Your task to perform on an android device: install app "Facebook Messenger" Image 0: 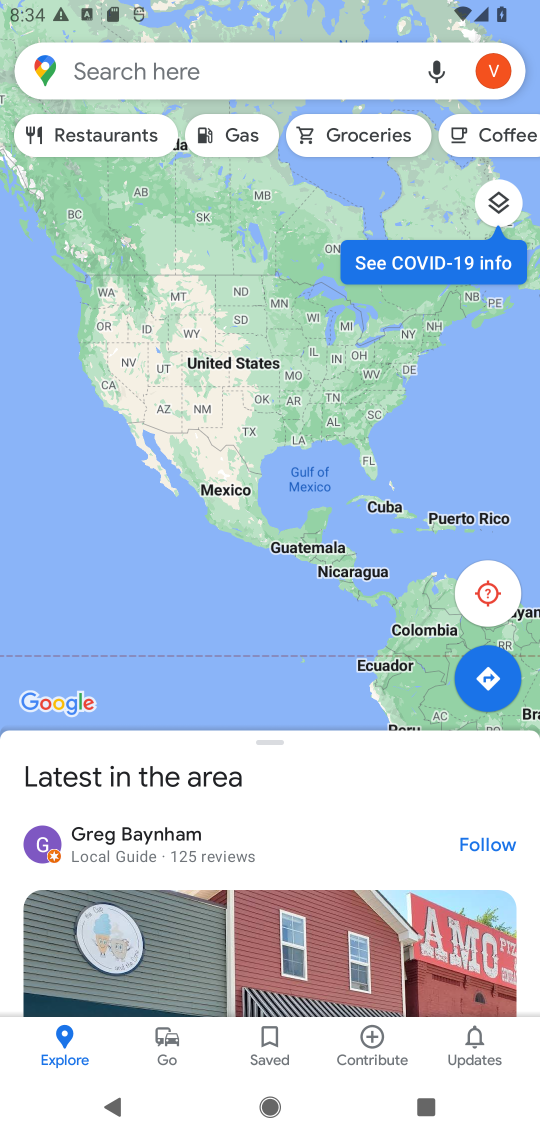
Step 0: press home button
Your task to perform on an android device: install app "Facebook Messenger" Image 1: 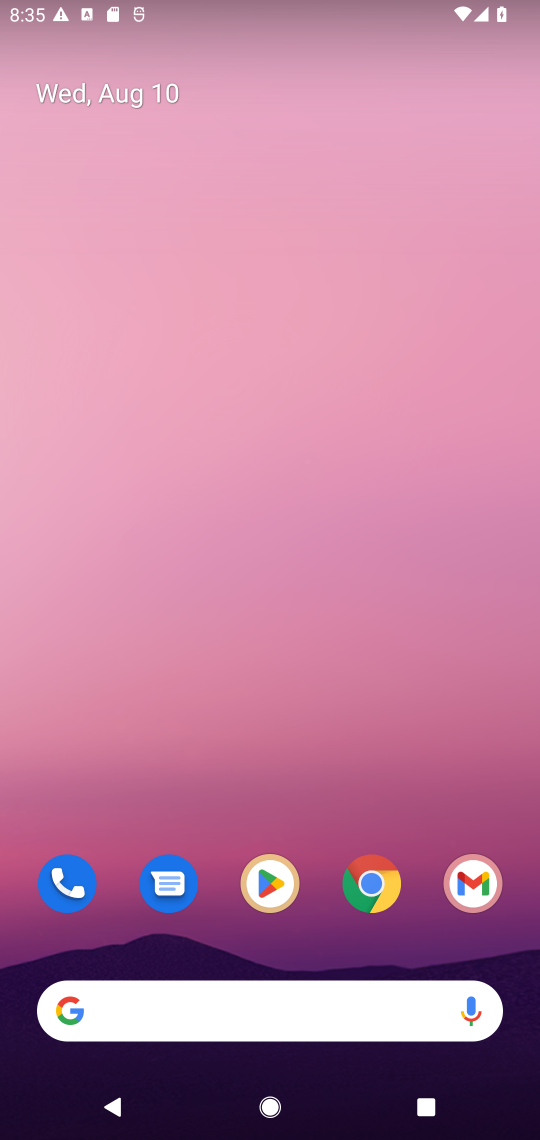
Step 1: click (267, 890)
Your task to perform on an android device: install app "Facebook Messenger" Image 2: 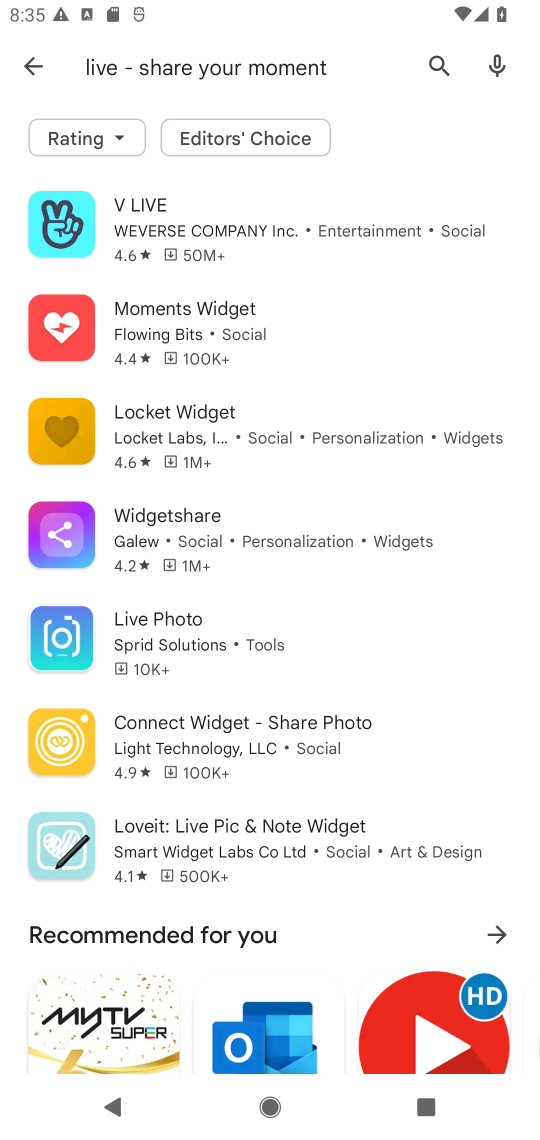
Step 2: click (435, 60)
Your task to perform on an android device: install app "Facebook Messenger" Image 3: 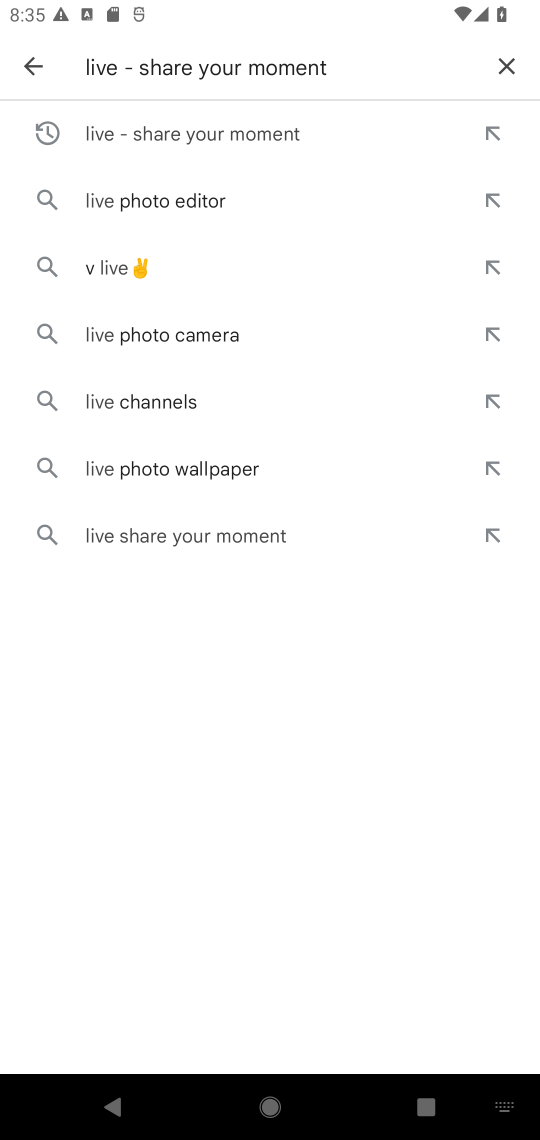
Step 3: click (507, 66)
Your task to perform on an android device: install app "Facebook Messenger" Image 4: 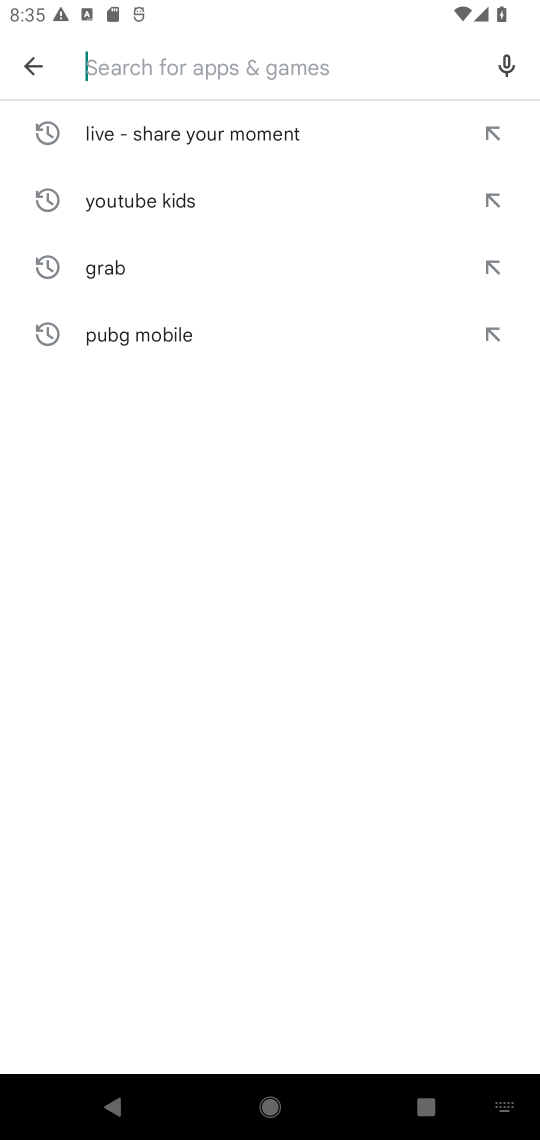
Step 4: type "Facebook Messenger"
Your task to perform on an android device: install app "Facebook Messenger" Image 5: 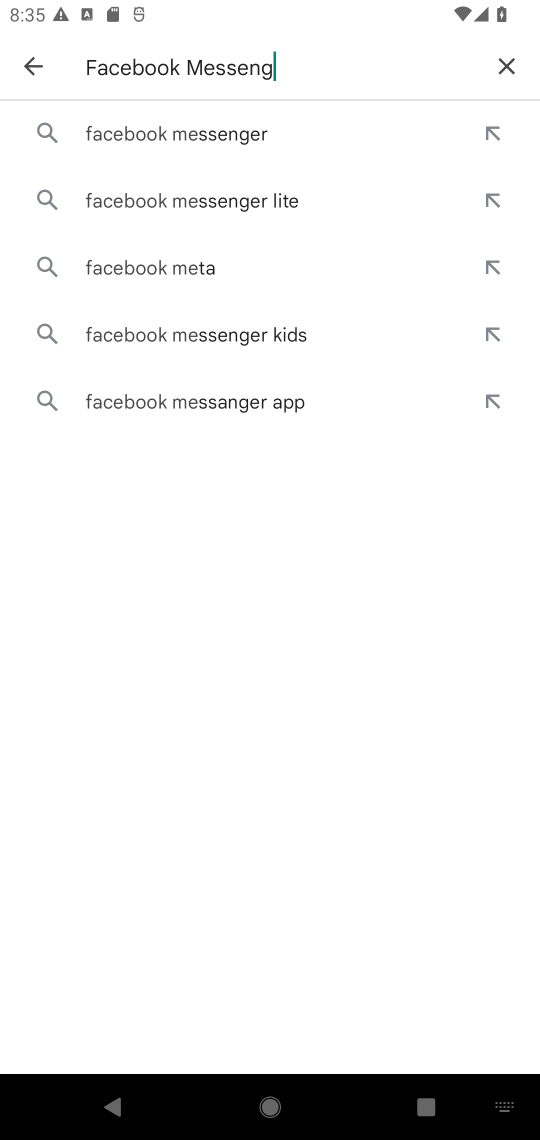
Step 5: type ""
Your task to perform on an android device: install app "Facebook Messenger" Image 6: 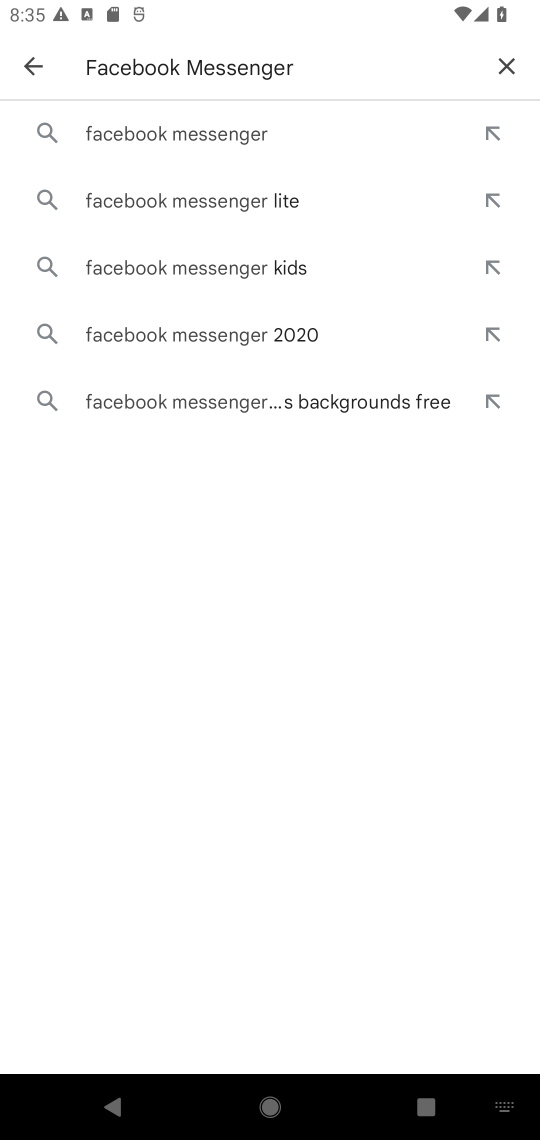
Step 6: click (112, 133)
Your task to perform on an android device: install app "Facebook Messenger" Image 7: 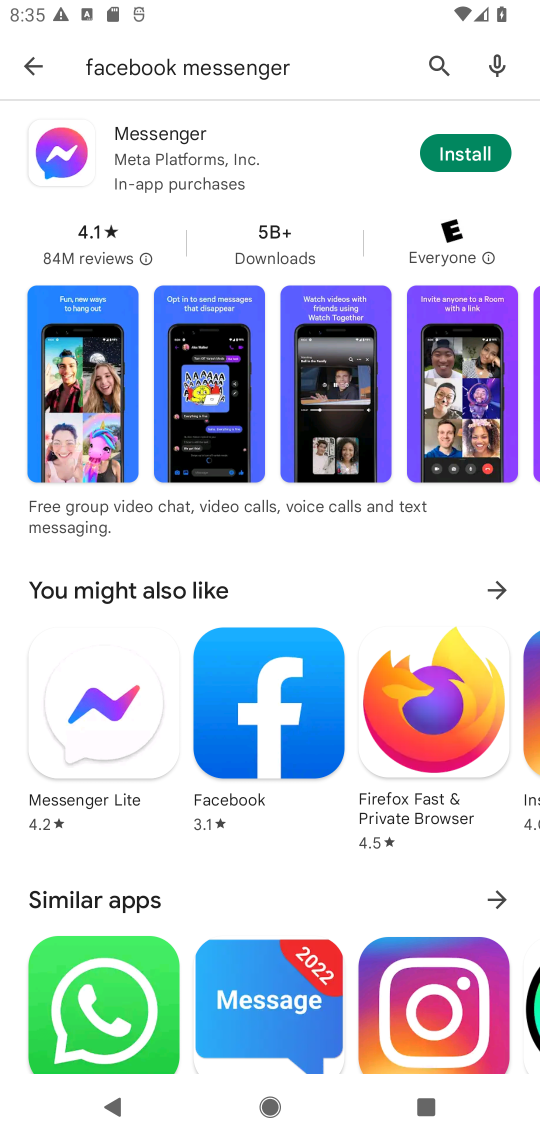
Step 7: click (437, 151)
Your task to perform on an android device: install app "Facebook Messenger" Image 8: 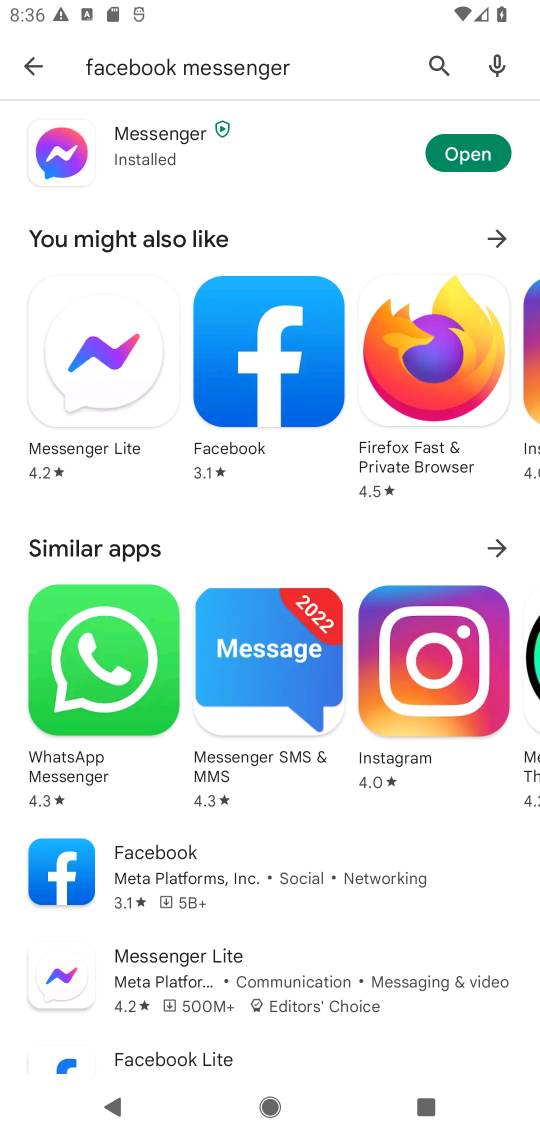
Step 8: task complete